Your task to perform on an android device: Go to Wikipedia Image 0: 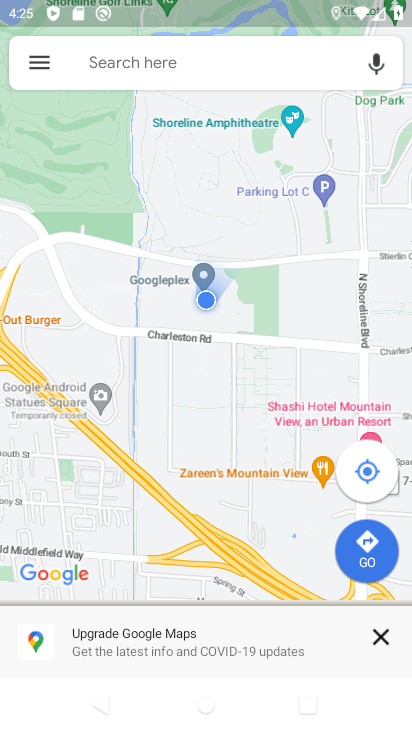
Step 0: press home button
Your task to perform on an android device: Go to Wikipedia Image 1: 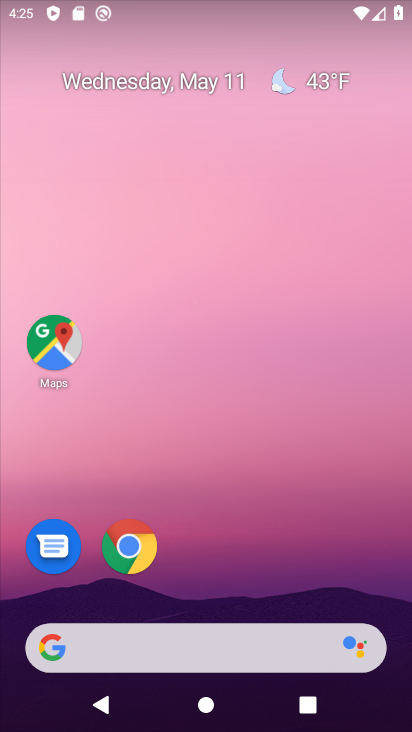
Step 1: click (154, 533)
Your task to perform on an android device: Go to Wikipedia Image 2: 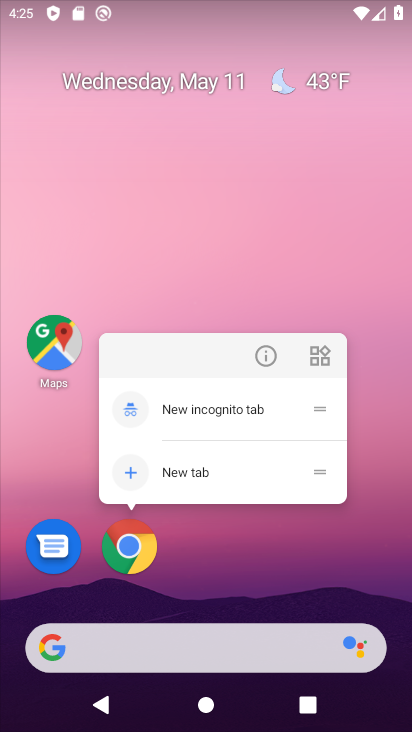
Step 2: click (129, 556)
Your task to perform on an android device: Go to Wikipedia Image 3: 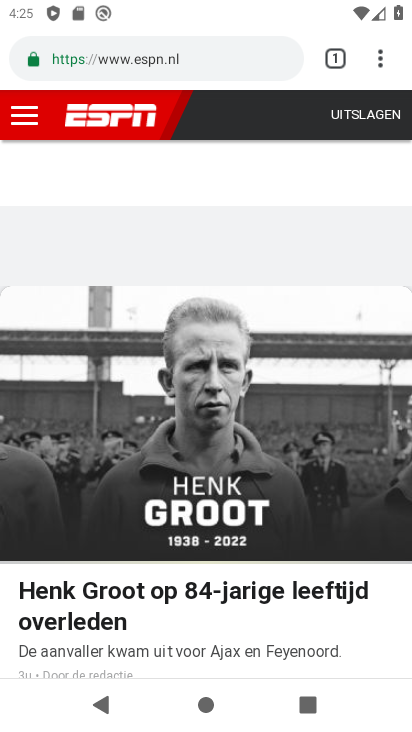
Step 3: click (385, 58)
Your task to perform on an android device: Go to Wikipedia Image 4: 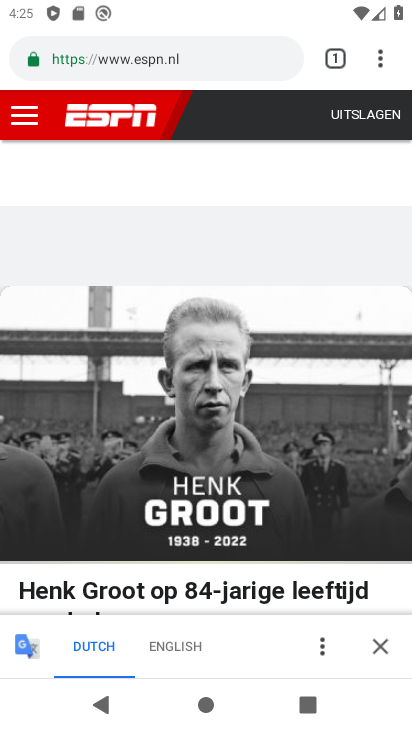
Step 4: click (342, 62)
Your task to perform on an android device: Go to Wikipedia Image 5: 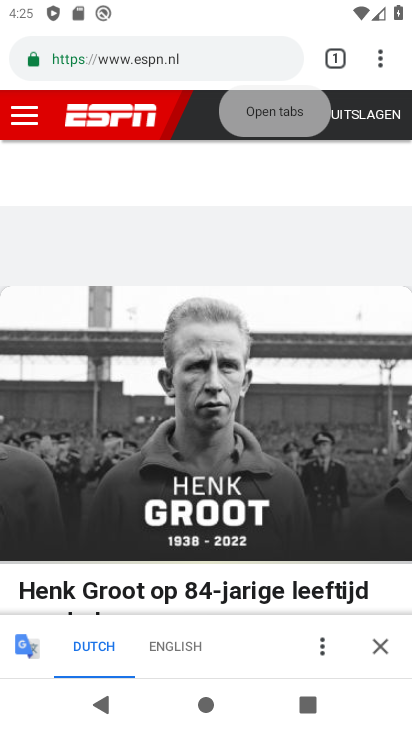
Step 5: click (332, 61)
Your task to perform on an android device: Go to Wikipedia Image 6: 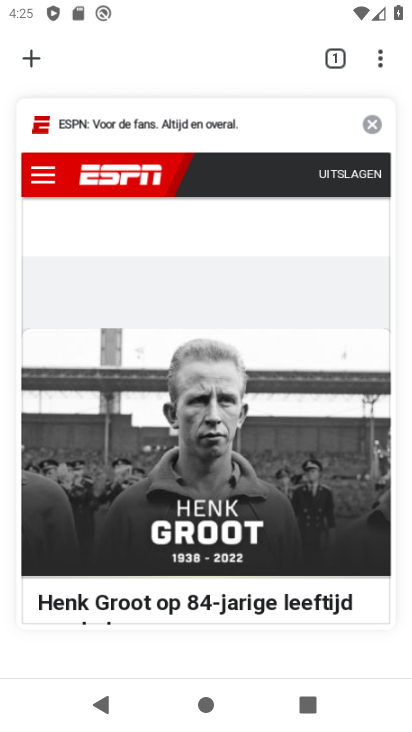
Step 6: click (33, 57)
Your task to perform on an android device: Go to Wikipedia Image 7: 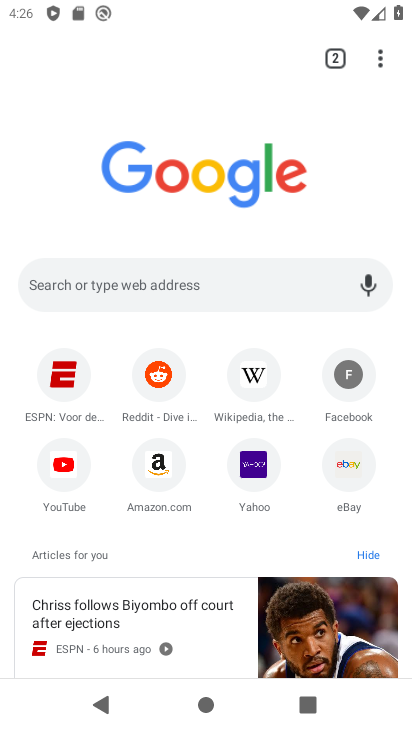
Step 7: click (251, 377)
Your task to perform on an android device: Go to Wikipedia Image 8: 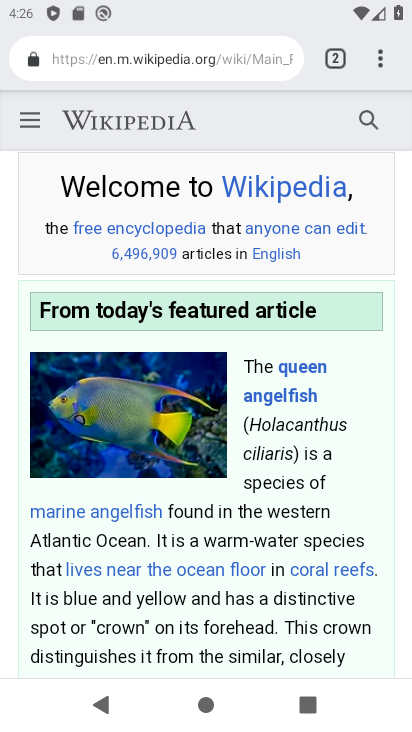
Step 8: task complete